Your task to perform on an android device: Turn off the flashlight Image 0: 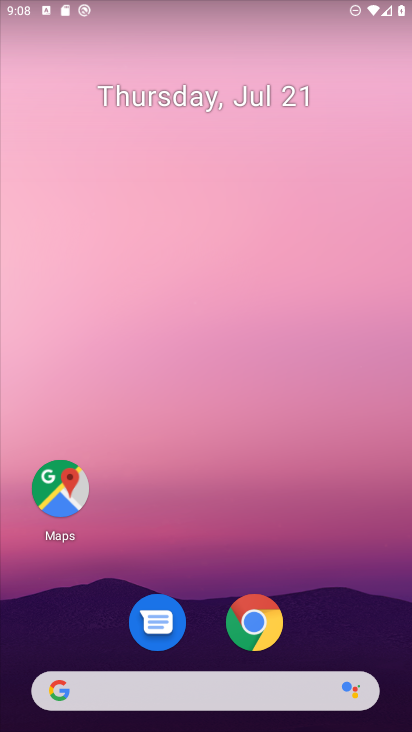
Step 0: drag from (249, 8) to (226, 726)
Your task to perform on an android device: Turn off the flashlight Image 1: 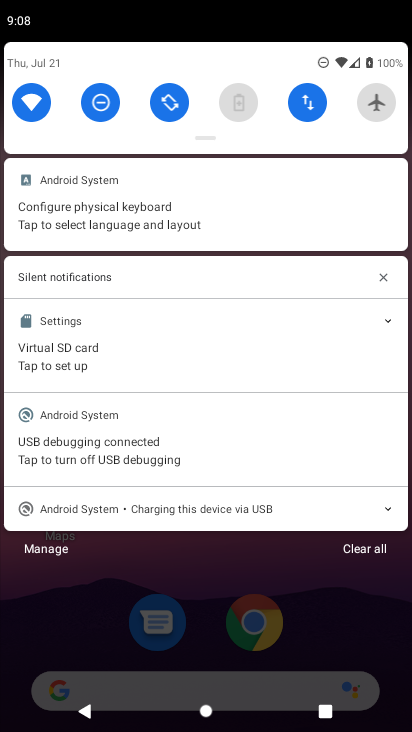
Step 1: task complete